Your task to perform on an android device: turn off smart reply in the gmail app Image 0: 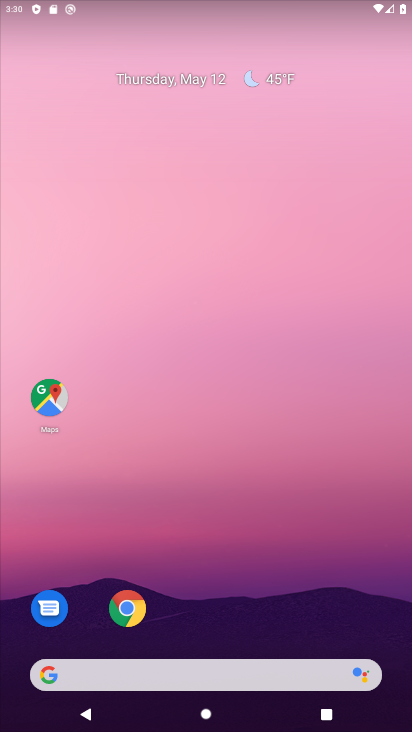
Step 0: drag from (216, 592) to (327, 83)
Your task to perform on an android device: turn off smart reply in the gmail app Image 1: 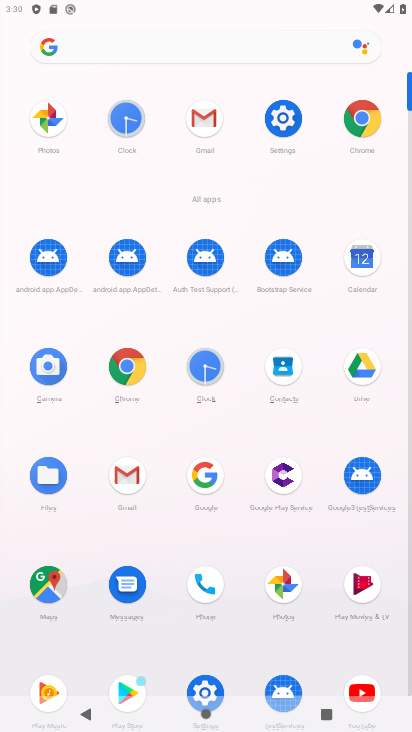
Step 1: click (186, 132)
Your task to perform on an android device: turn off smart reply in the gmail app Image 2: 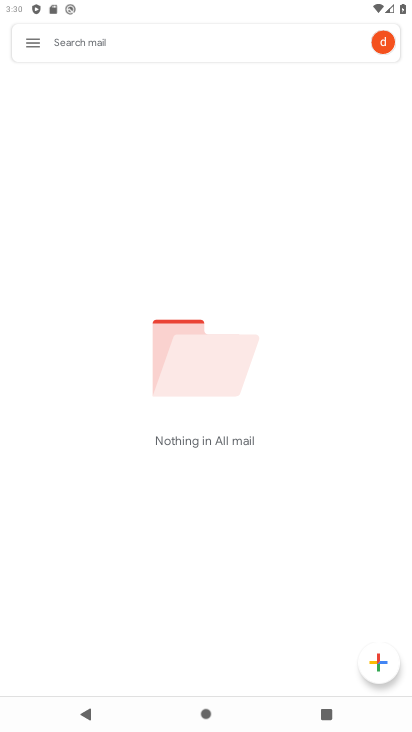
Step 2: click (24, 33)
Your task to perform on an android device: turn off smart reply in the gmail app Image 3: 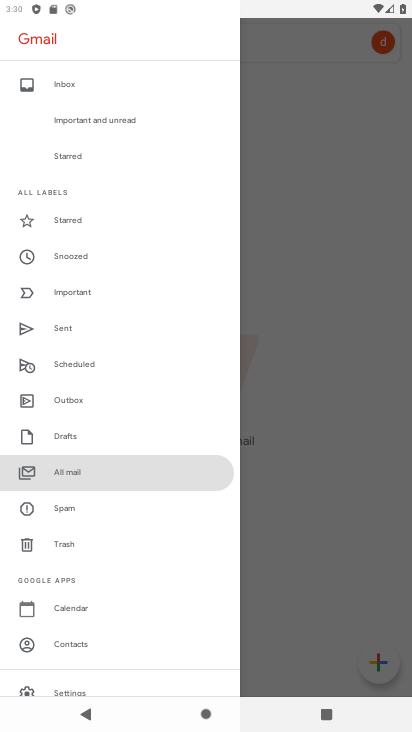
Step 3: click (75, 687)
Your task to perform on an android device: turn off smart reply in the gmail app Image 4: 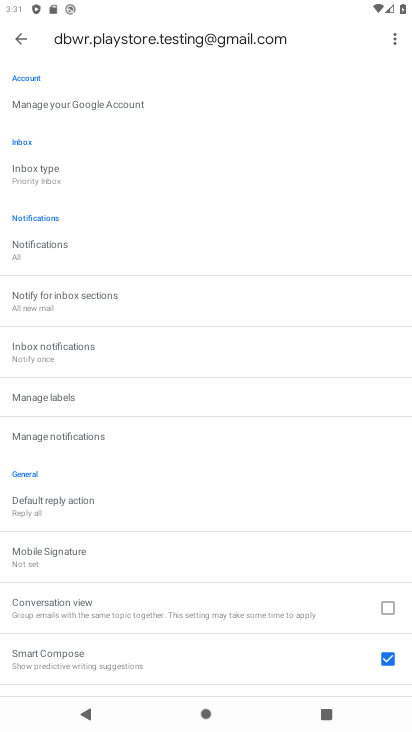
Step 4: drag from (122, 652) to (330, 194)
Your task to perform on an android device: turn off smart reply in the gmail app Image 5: 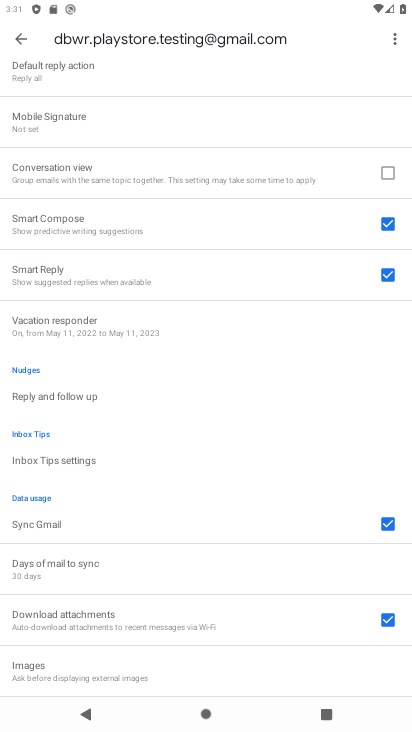
Step 5: click (388, 281)
Your task to perform on an android device: turn off smart reply in the gmail app Image 6: 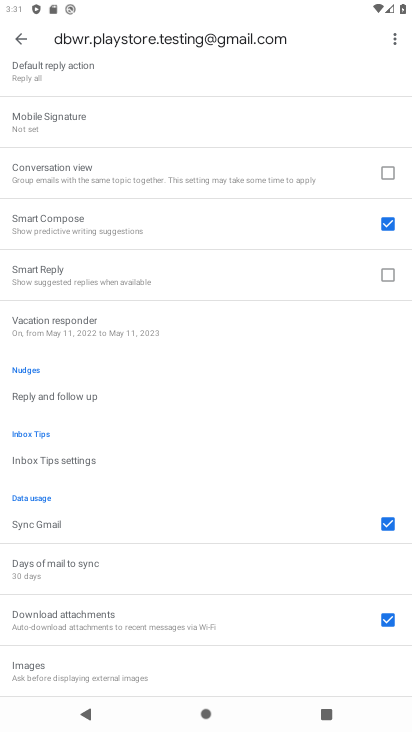
Step 6: task complete